Your task to perform on an android device: Go to location settings Image 0: 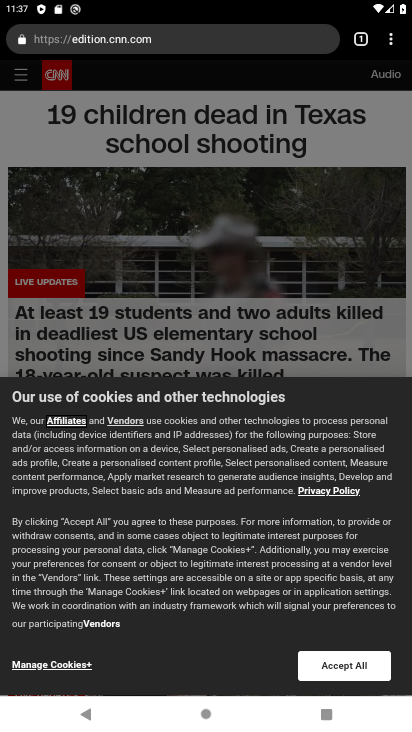
Step 0: press home button
Your task to perform on an android device: Go to location settings Image 1: 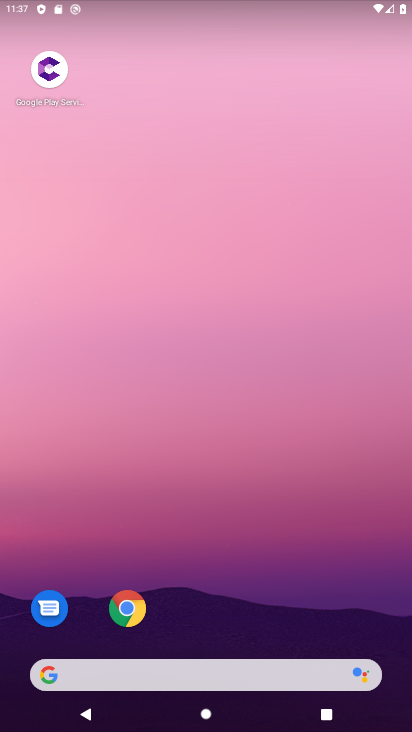
Step 1: drag from (160, 654) to (229, 272)
Your task to perform on an android device: Go to location settings Image 2: 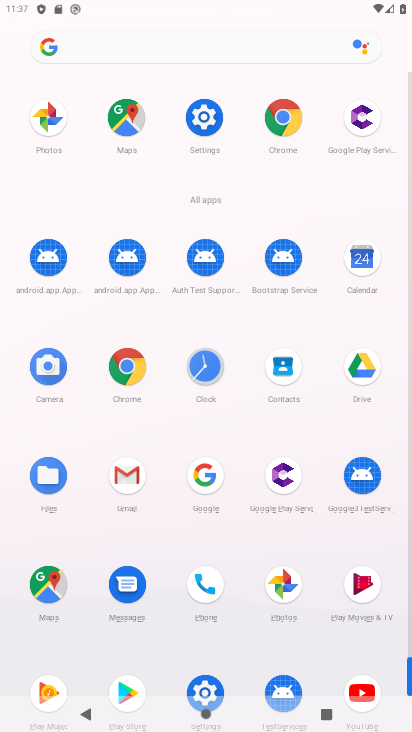
Step 2: drag from (153, 699) to (208, 420)
Your task to perform on an android device: Go to location settings Image 3: 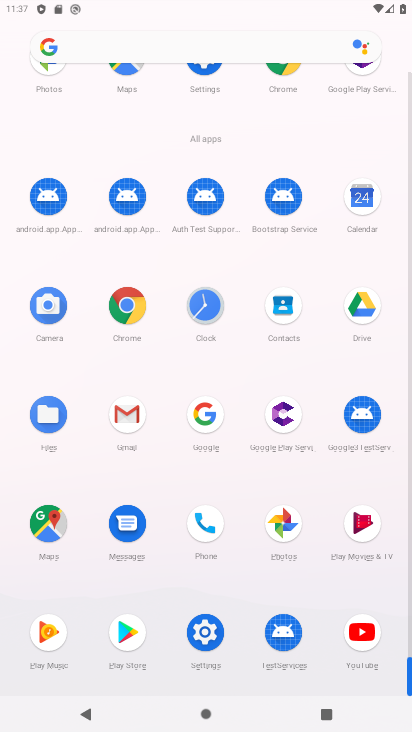
Step 3: click (210, 638)
Your task to perform on an android device: Go to location settings Image 4: 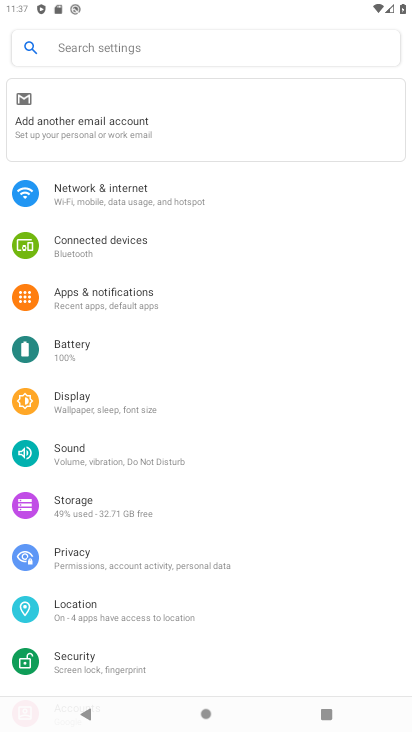
Step 4: click (107, 615)
Your task to perform on an android device: Go to location settings Image 5: 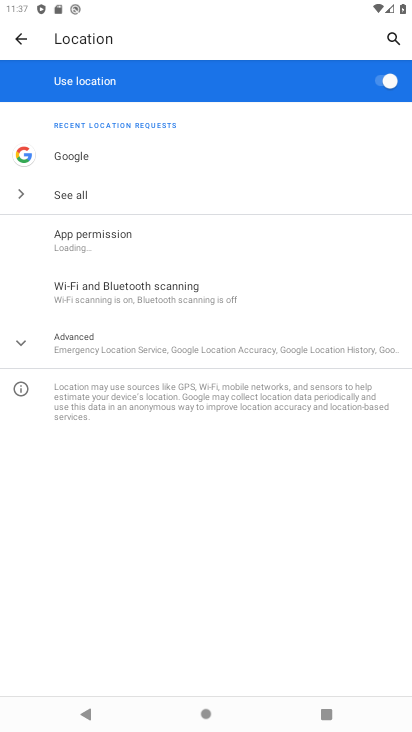
Step 5: task complete